Your task to perform on an android device: Go to eBay Image 0: 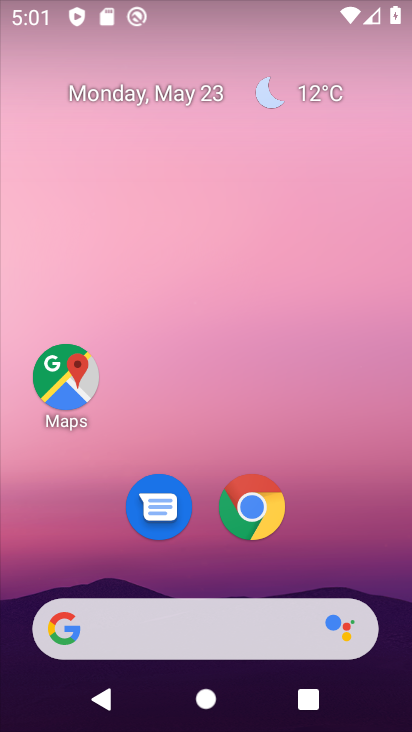
Step 0: click (268, 512)
Your task to perform on an android device: Go to eBay Image 1: 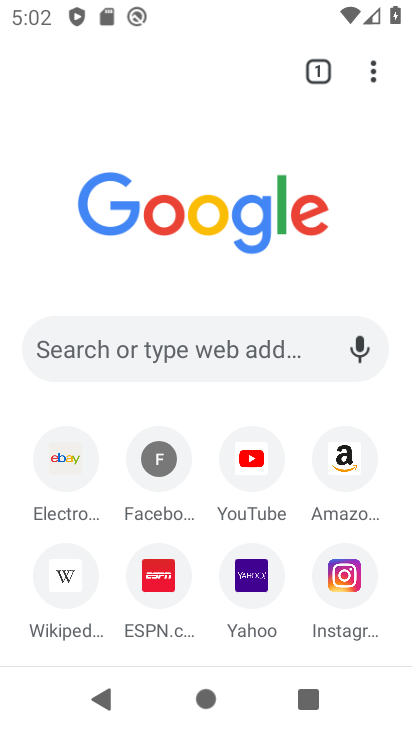
Step 1: click (60, 458)
Your task to perform on an android device: Go to eBay Image 2: 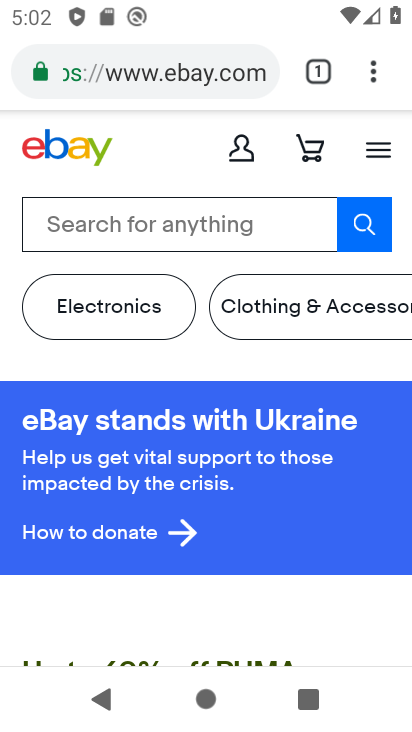
Step 2: task complete